Your task to perform on an android device: open device folders in google photos Image 0: 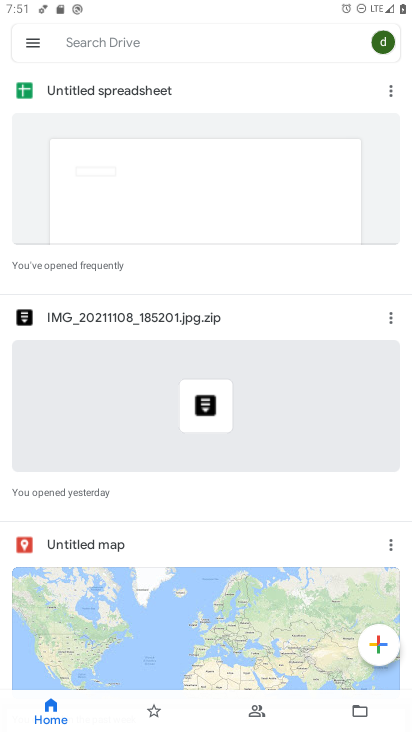
Step 0: press home button
Your task to perform on an android device: open device folders in google photos Image 1: 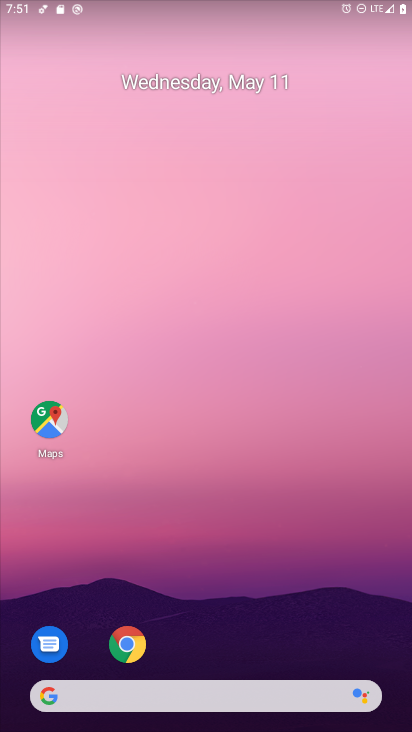
Step 1: drag from (229, 549) to (119, 10)
Your task to perform on an android device: open device folders in google photos Image 2: 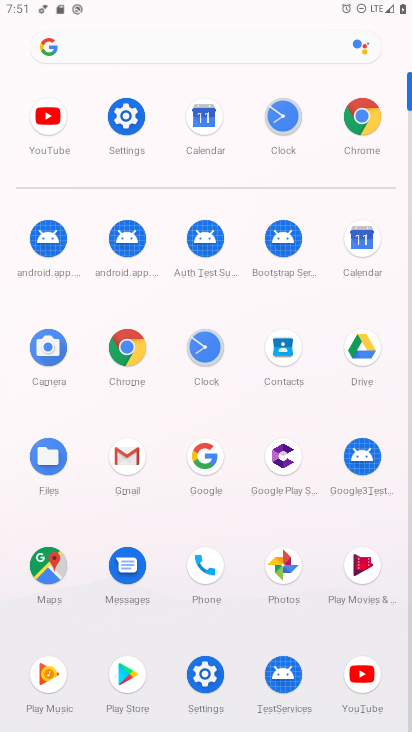
Step 2: click (282, 565)
Your task to perform on an android device: open device folders in google photos Image 3: 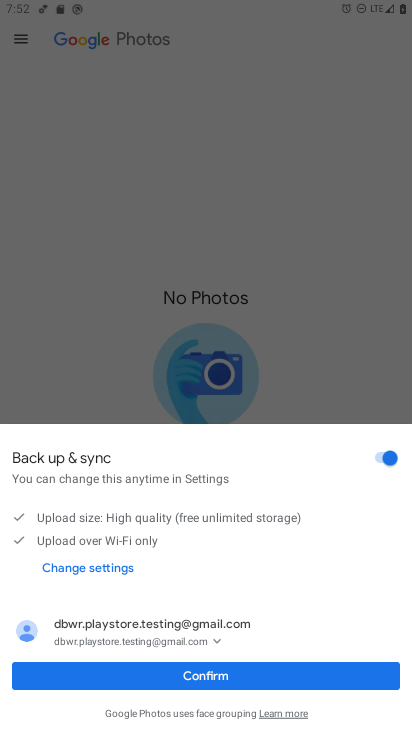
Step 3: click (195, 680)
Your task to perform on an android device: open device folders in google photos Image 4: 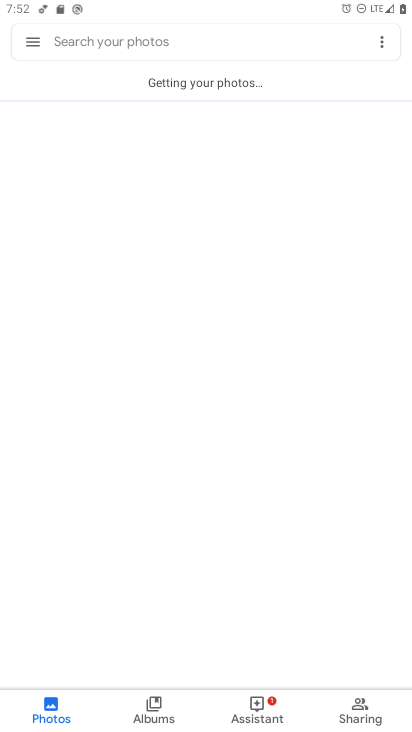
Step 4: click (32, 45)
Your task to perform on an android device: open device folders in google photos Image 5: 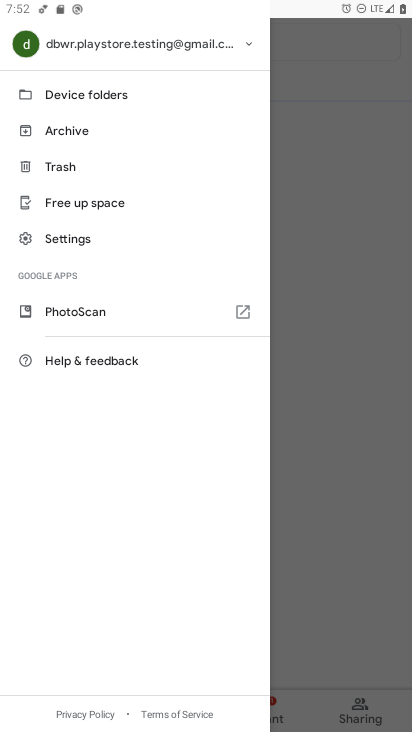
Step 5: click (65, 95)
Your task to perform on an android device: open device folders in google photos Image 6: 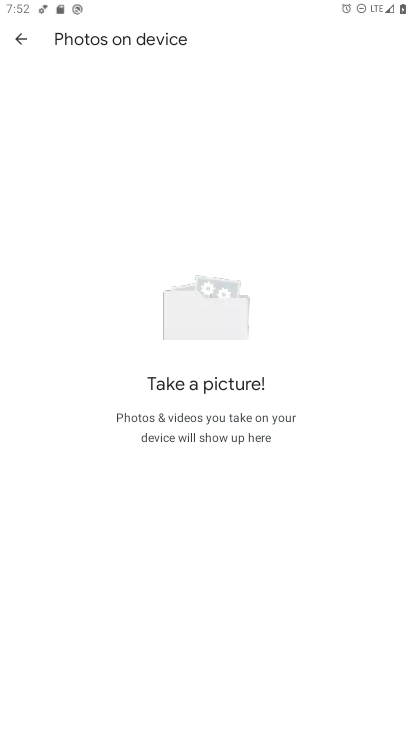
Step 6: task complete